Your task to perform on an android device: Search for "razer blackwidow" on walmart.com, select the first entry, add it to the cart, then select checkout. Image 0: 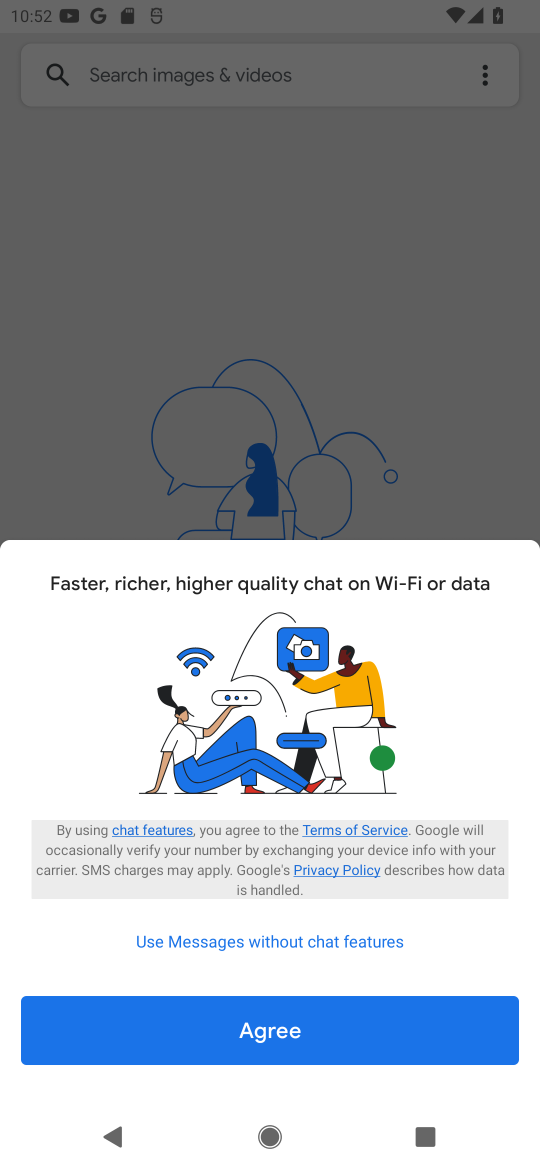
Step 0: press home button
Your task to perform on an android device: Search for "razer blackwidow" on walmart.com, select the first entry, add it to the cart, then select checkout. Image 1: 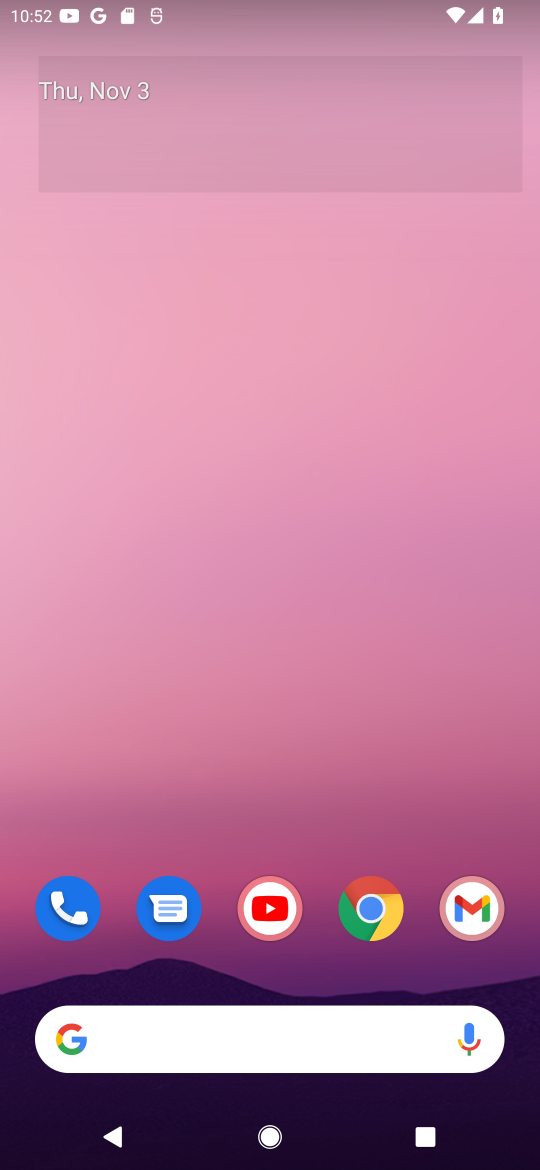
Step 1: click (379, 909)
Your task to perform on an android device: Search for "razer blackwidow" on walmart.com, select the first entry, add it to the cart, then select checkout. Image 2: 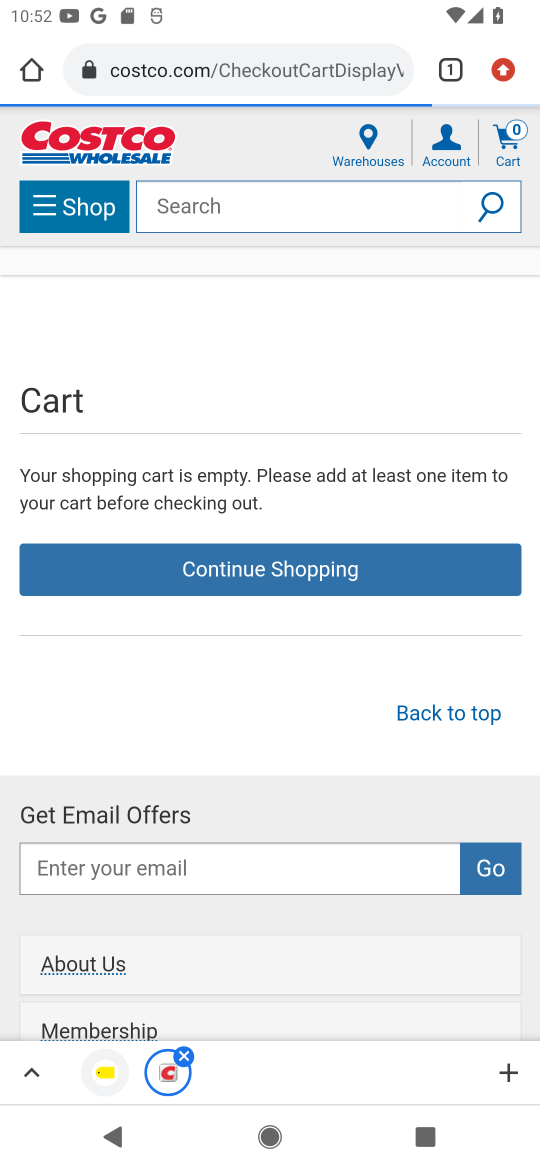
Step 2: click (25, 70)
Your task to perform on an android device: Search for "razer blackwidow" on walmart.com, select the first entry, add it to the cart, then select checkout. Image 3: 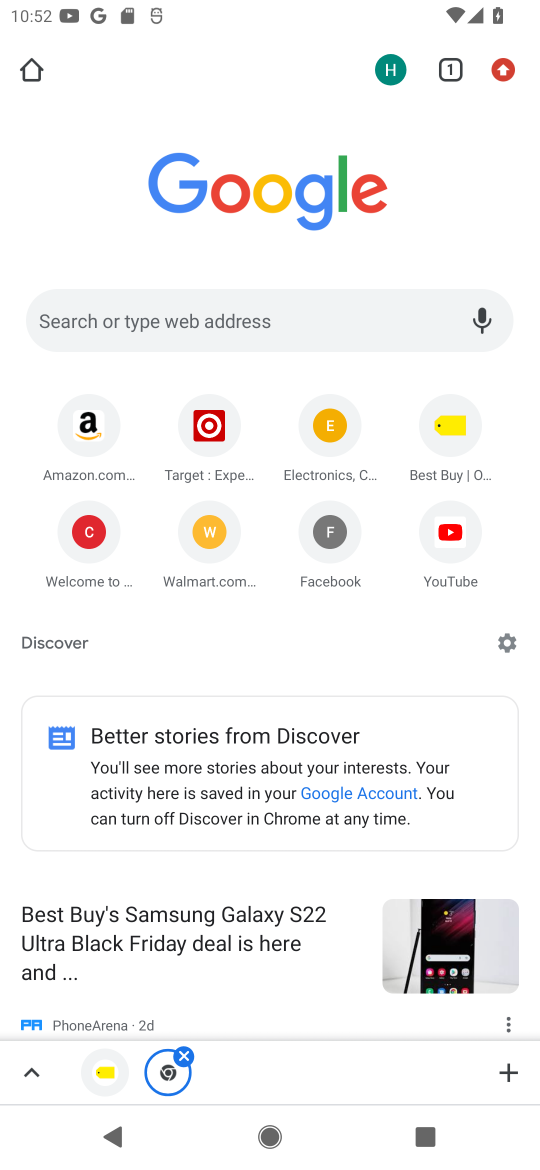
Step 3: click (370, 304)
Your task to perform on an android device: Search for "razer blackwidow" on walmart.com, select the first entry, add it to the cart, then select checkout. Image 4: 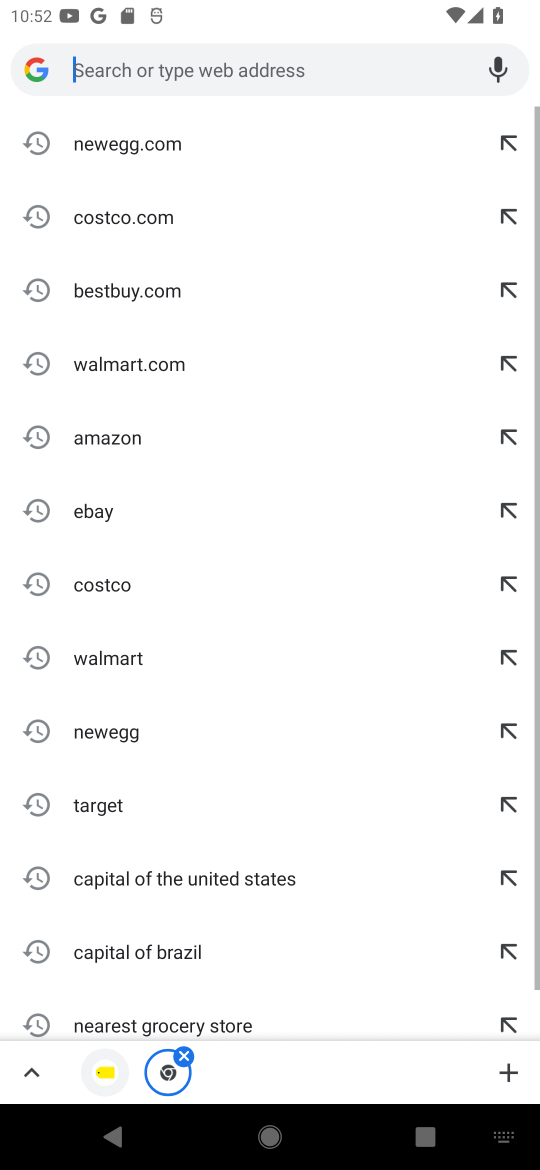
Step 4: click (176, 360)
Your task to perform on an android device: Search for "razer blackwidow" on walmart.com, select the first entry, add it to the cart, then select checkout. Image 5: 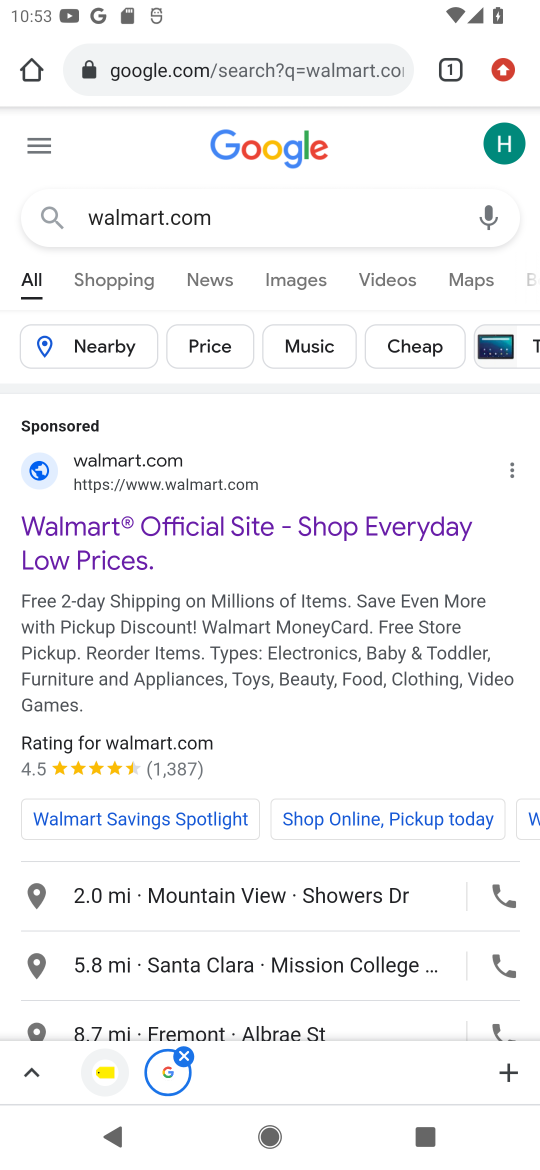
Step 5: click (159, 459)
Your task to perform on an android device: Search for "razer blackwidow" on walmart.com, select the first entry, add it to the cart, then select checkout. Image 6: 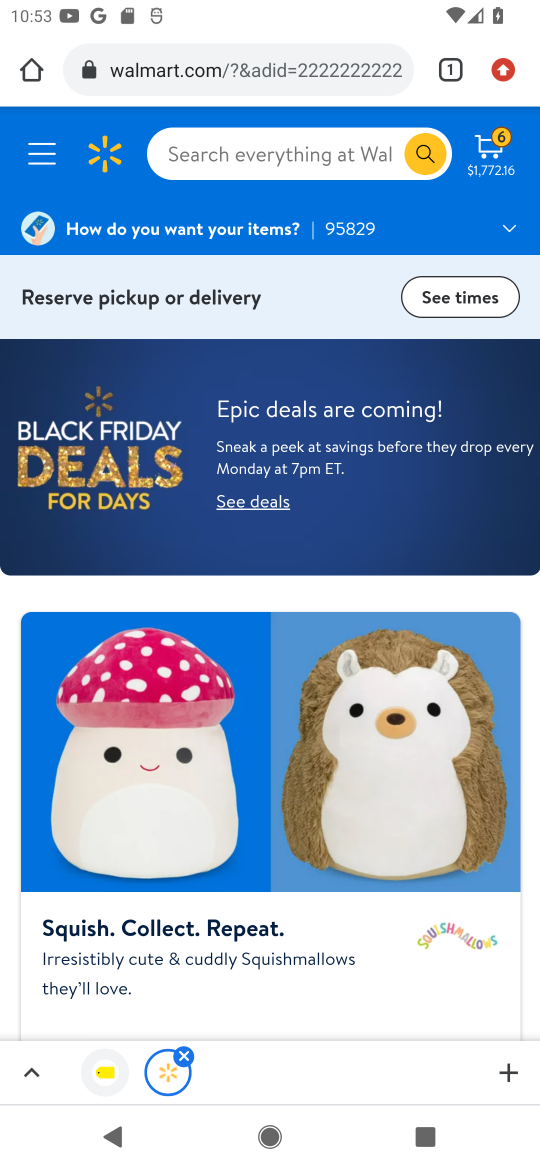
Step 6: click (273, 134)
Your task to perform on an android device: Search for "razer blackwidow" on walmart.com, select the first entry, add it to the cart, then select checkout. Image 7: 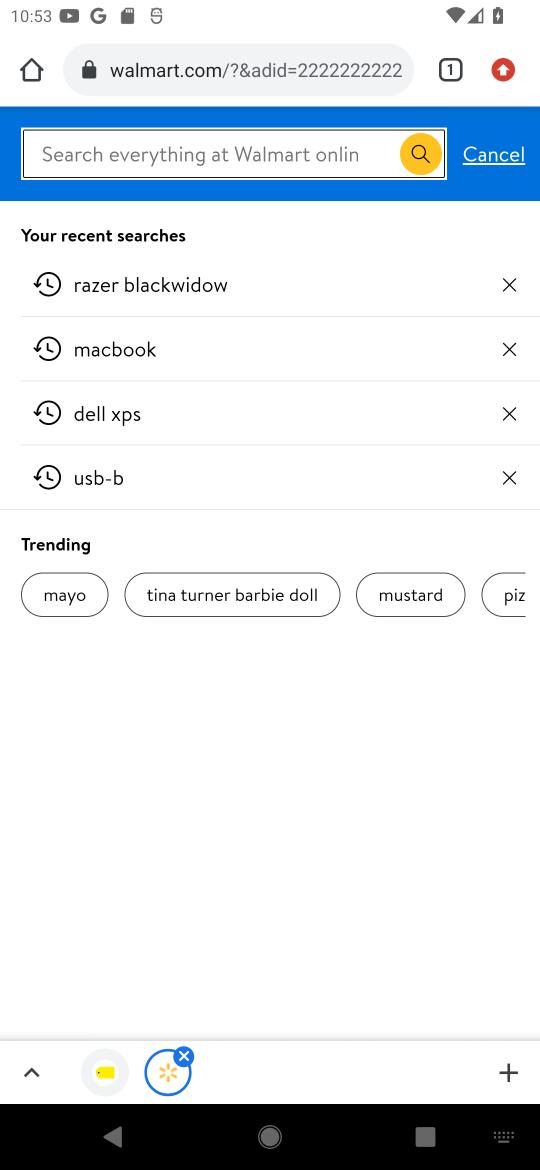
Step 7: type "razer blackwidow"
Your task to perform on an android device: Search for "razer blackwidow" on walmart.com, select the first entry, add it to the cart, then select checkout. Image 8: 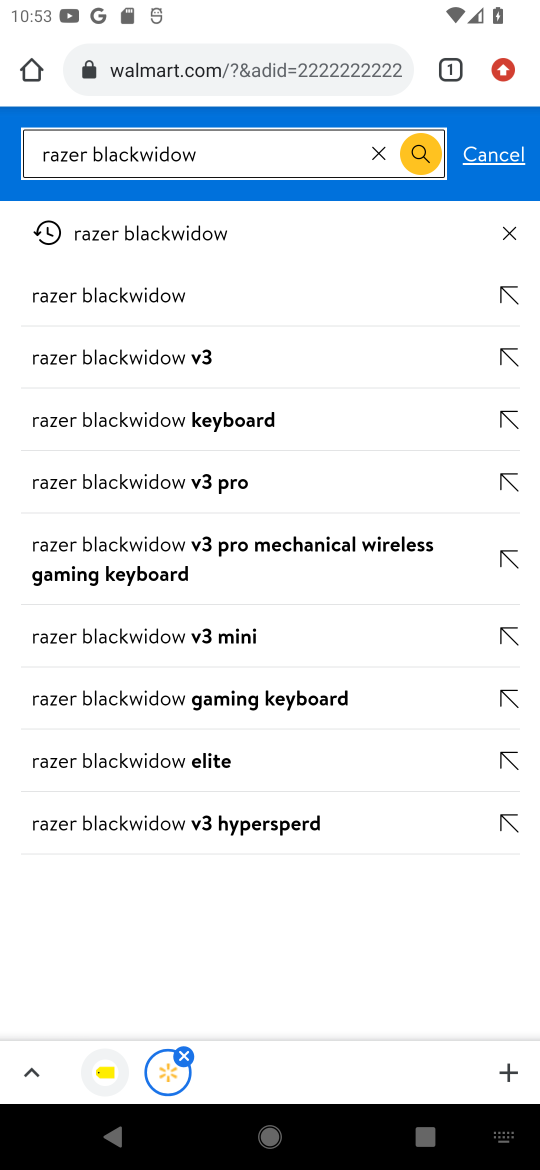
Step 8: click (137, 296)
Your task to perform on an android device: Search for "razer blackwidow" on walmart.com, select the first entry, add it to the cart, then select checkout. Image 9: 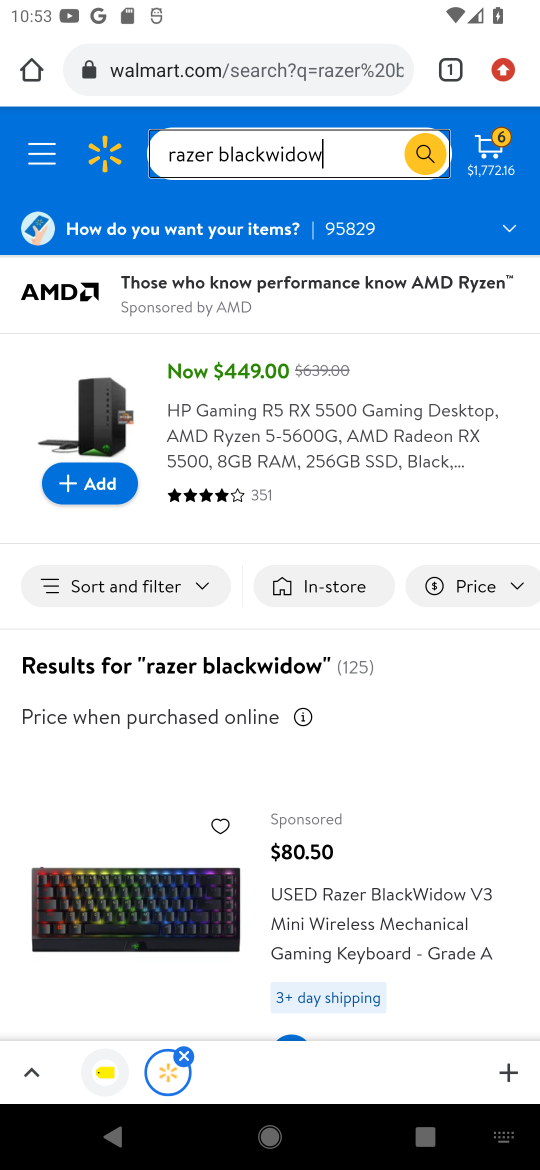
Step 9: click (153, 920)
Your task to perform on an android device: Search for "razer blackwidow" on walmart.com, select the first entry, add it to the cart, then select checkout. Image 10: 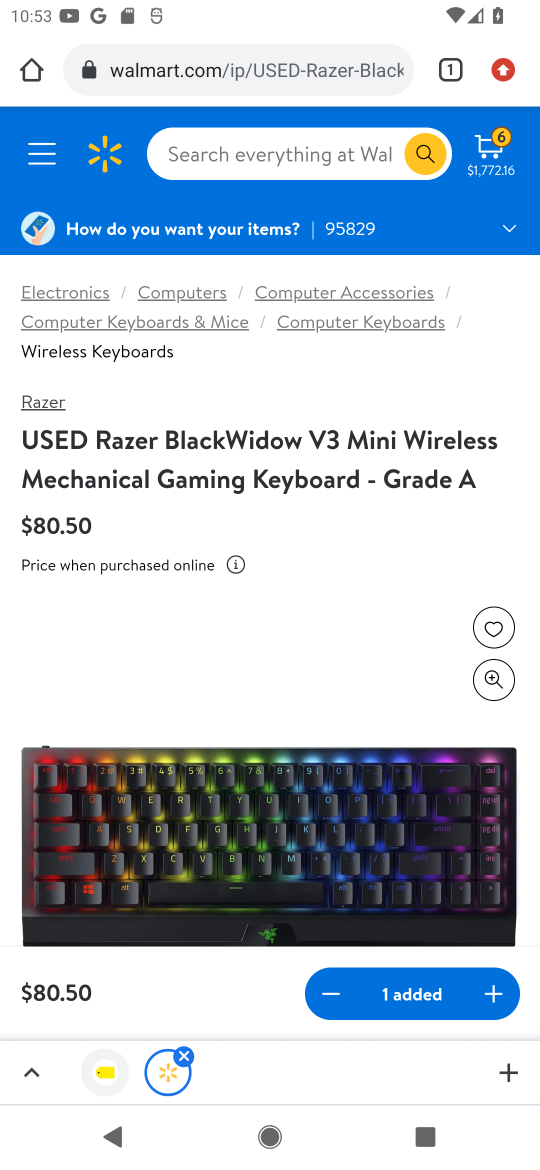
Step 10: press back button
Your task to perform on an android device: Search for "razer blackwidow" on walmart.com, select the first entry, add it to the cart, then select checkout. Image 11: 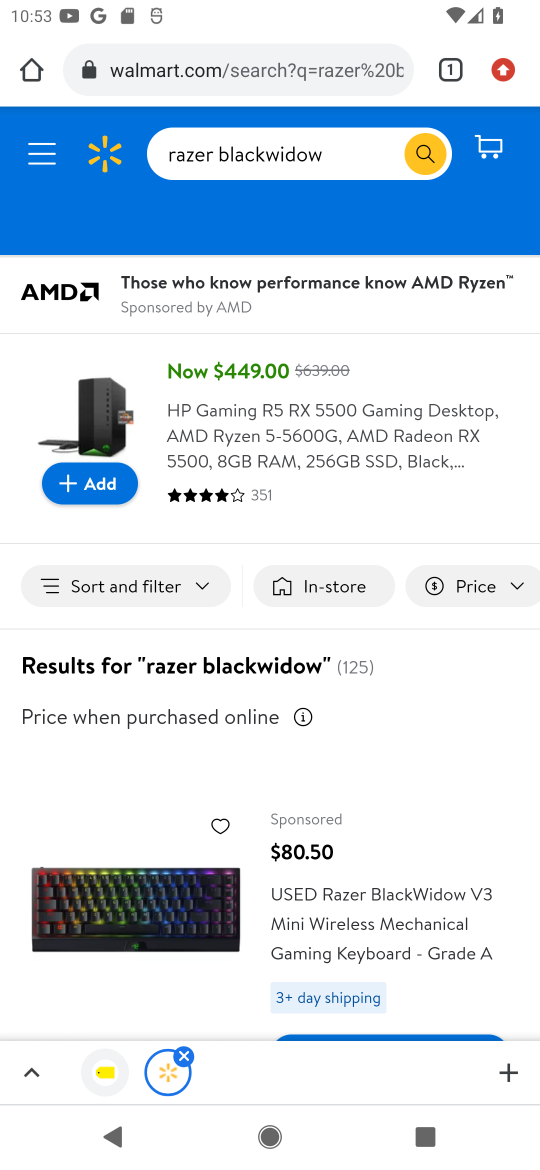
Step 11: drag from (342, 797) to (488, 351)
Your task to perform on an android device: Search for "razer blackwidow" on walmart.com, select the first entry, add it to the cart, then select checkout. Image 12: 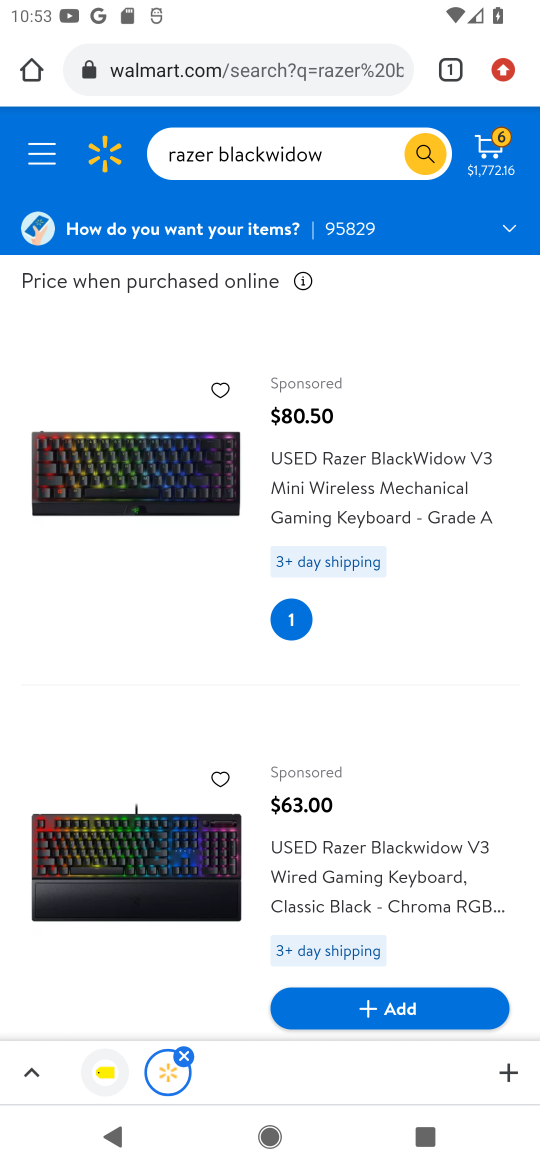
Step 12: drag from (173, 874) to (308, 505)
Your task to perform on an android device: Search for "razer blackwidow" on walmart.com, select the first entry, add it to the cart, then select checkout. Image 13: 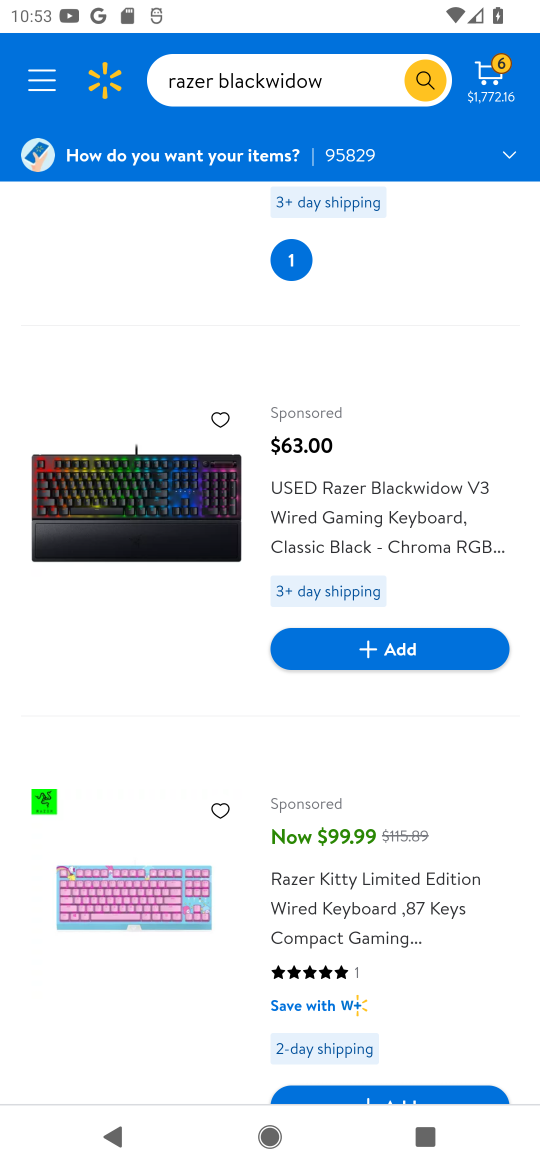
Step 13: drag from (226, 961) to (281, 660)
Your task to perform on an android device: Search for "razer blackwidow" on walmart.com, select the first entry, add it to the cart, then select checkout. Image 14: 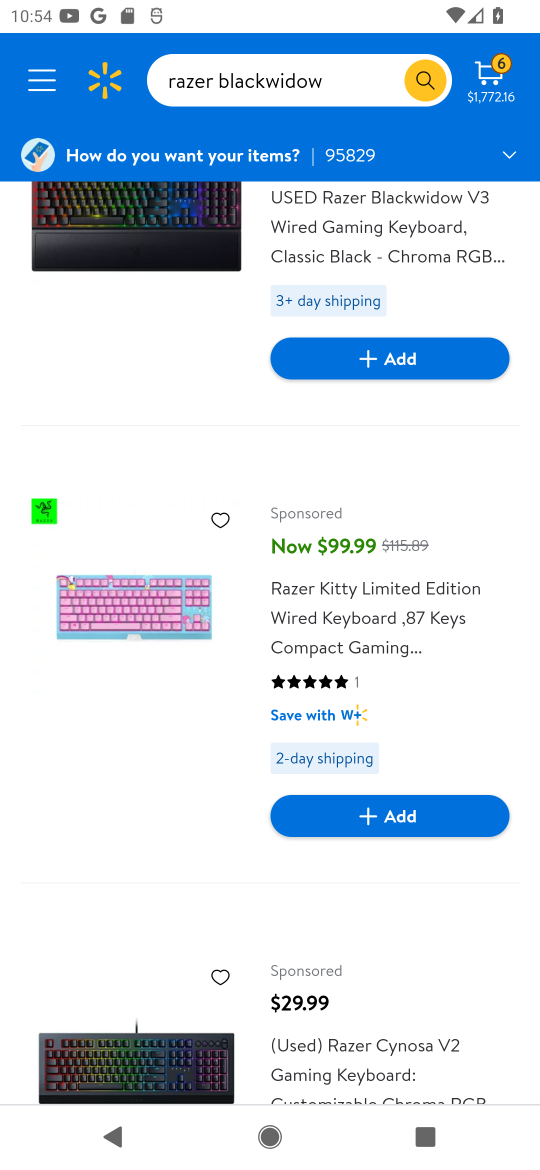
Step 14: drag from (370, 463) to (446, 862)
Your task to perform on an android device: Search for "razer blackwidow" on walmart.com, select the first entry, add it to the cart, then select checkout. Image 15: 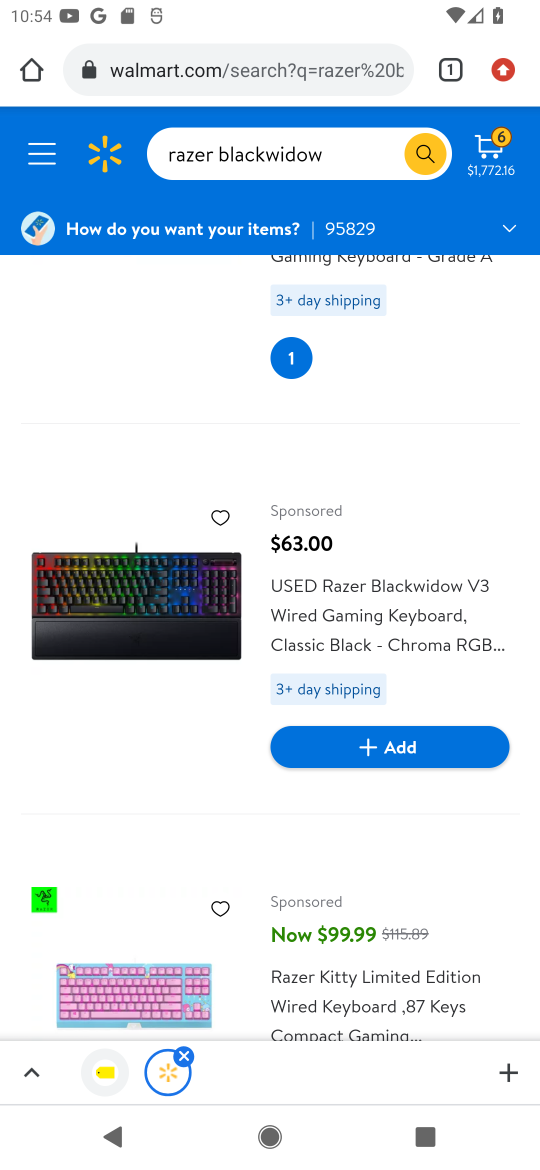
Step 15: drag from (221, 495) to (267, 680)
Your task to perform on an android device: Search for "razer blackwidow" on walmart.com, select the first entry, add it to the cart, then select checkout. Image 16: 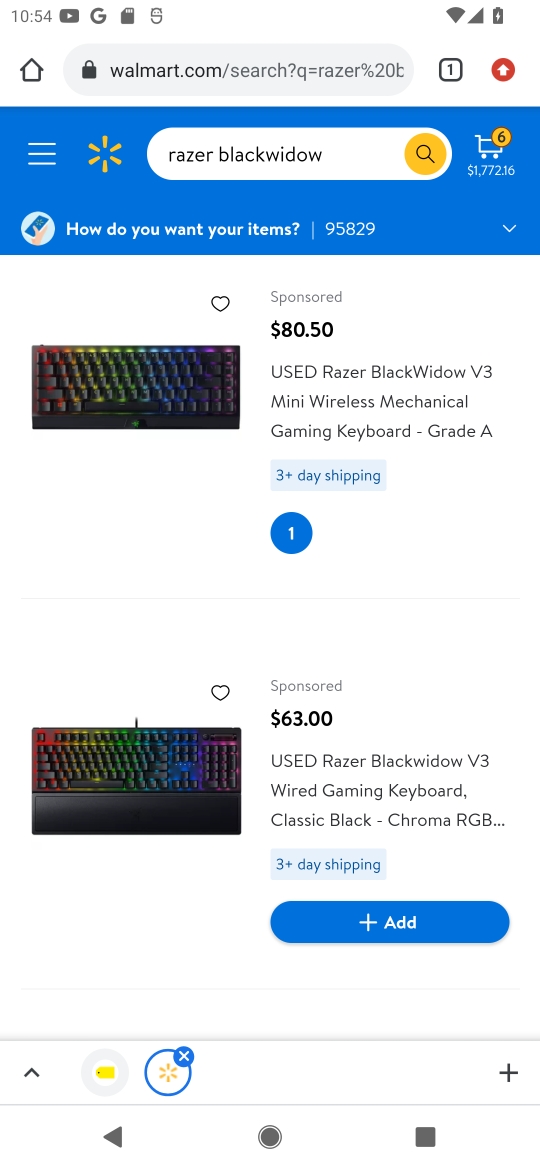
Step 16: click (123, 388)
Your task to perform on an android device: Search for "razer blackwidow" on walmart.com, select the first entry, add it to the cart, then select checkout. Image 17: 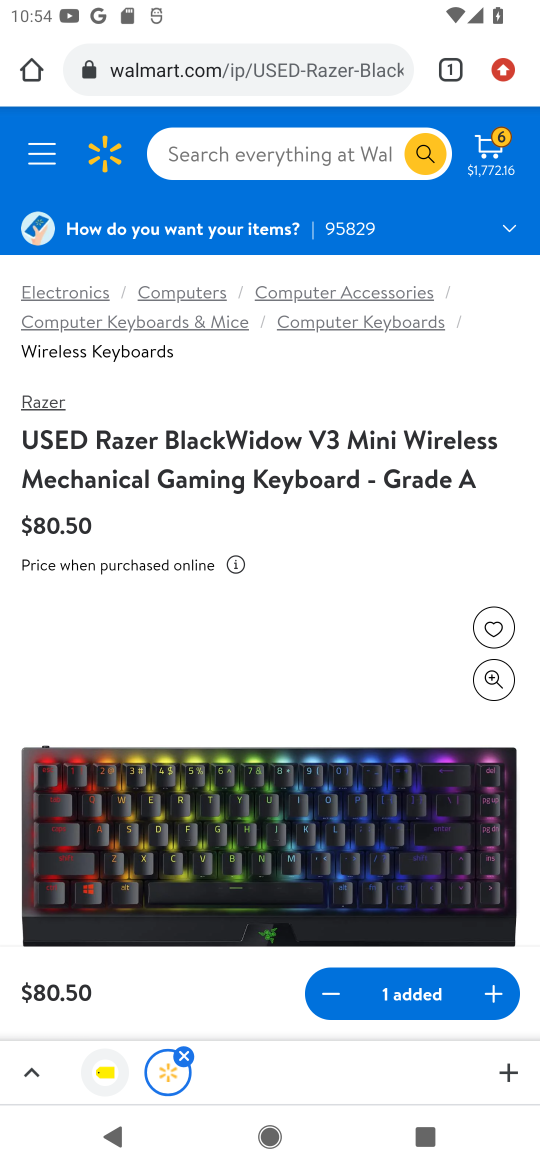
Step 17: drag from (192, 687) to (122, 316)
Your task to perform on an android device: Search for "razer blackwidow" on walmart.com, select the first entry, add it to the cart, then select checkout. Image 18: 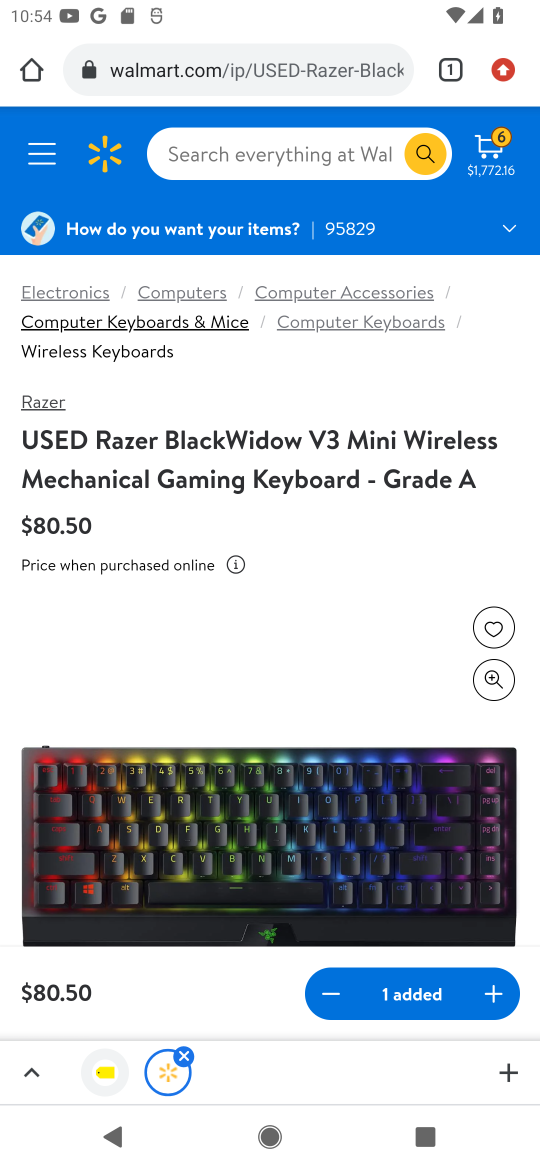
Step 18: drag from (208, 626) to (199, 425)
Your task to perform on an android device: Search for "razer blackwidow" on walmart.com, select the first entry, add it to the cart, then select checkout. Image 19: 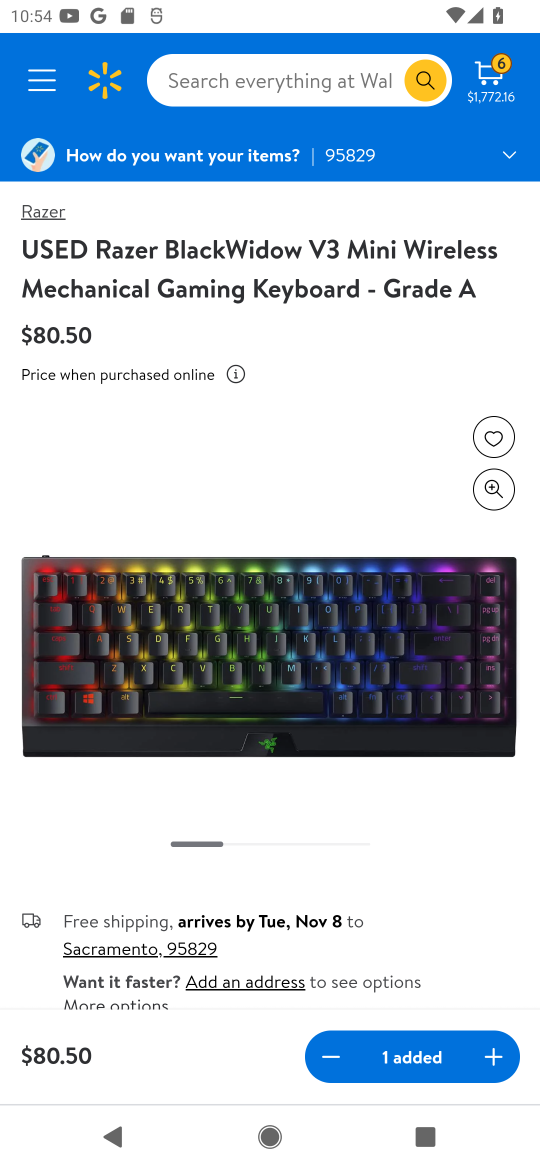
Step 19: drag from (297, 865) to (289, 565)
Your task to perform on an android device: Search for "razer blackwidow" on walmart.com, select the first entry, add it to the cart, then select checkout. Image 20: 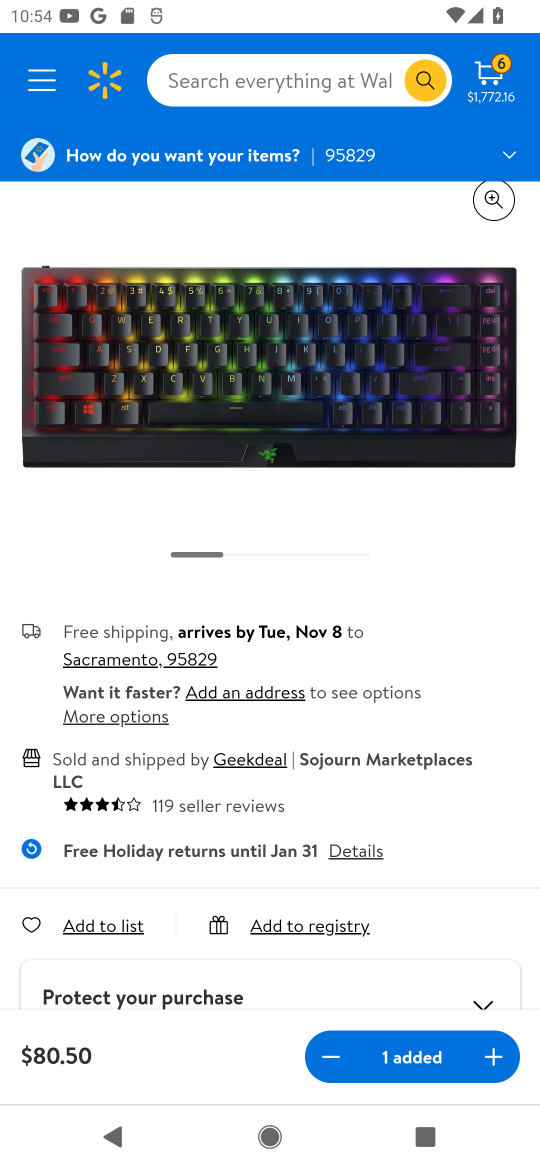
Step 20: drag from (422, 940) to (448, 726)
Your task to perform on an android device: Search for "razer blackwidow" on walmart.com, select the first entry, add it to the cart, then select checkout. Image 21: 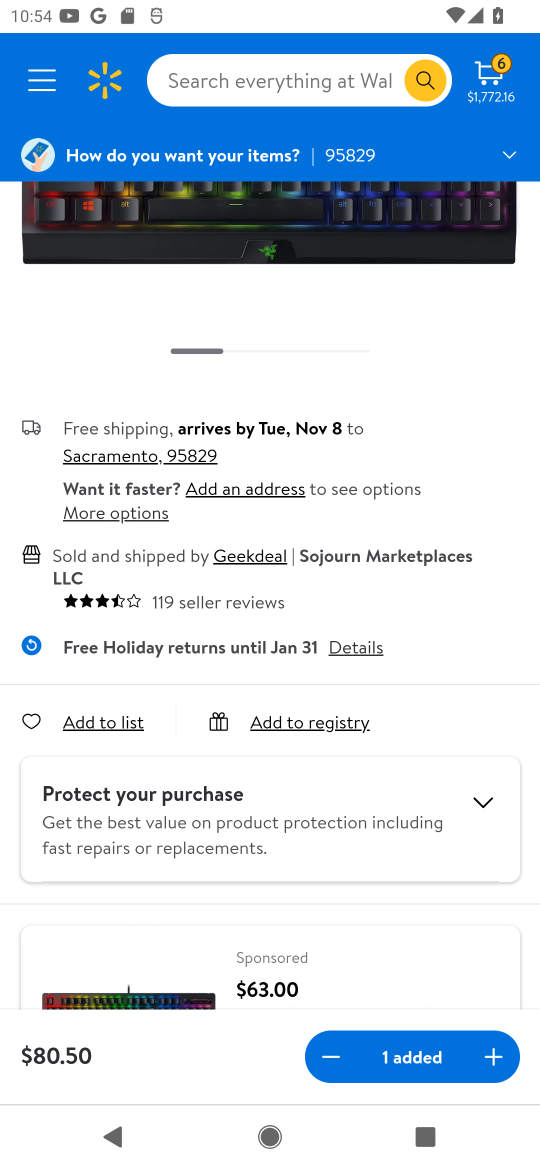
Step 21: click (135, 725)
Your task to perform on an android device: Search for "razer blackwidow" on walmart.com, select the first entry, add it to the cart, then select checkout. Image 22: 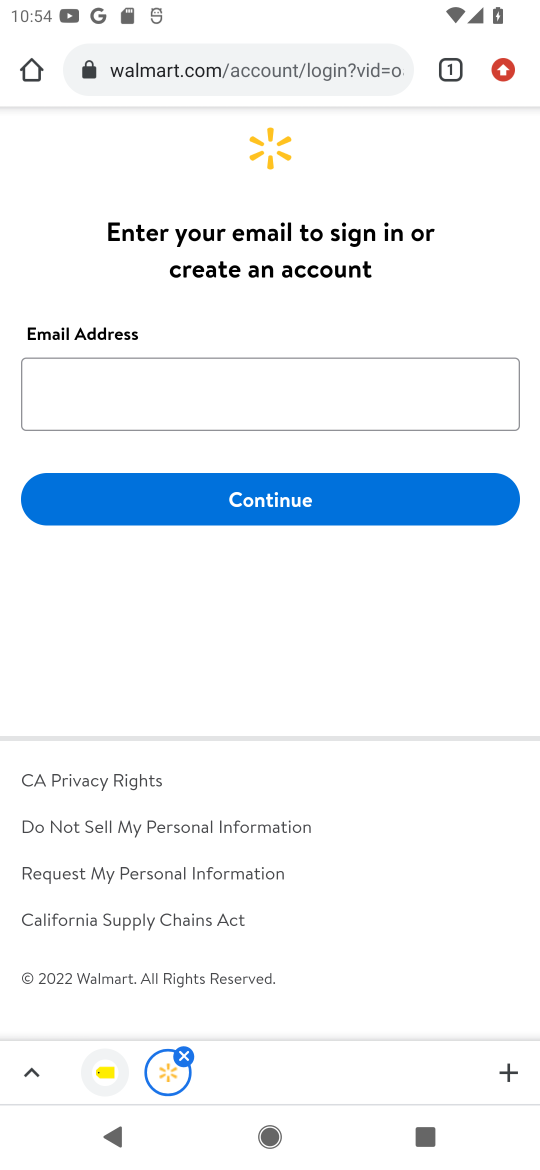
Step 22: drag from (463, 268) to (465, 444)
Your task to perform on an android device: Search for "razer blackwidow" on walmart.com, select the first entry, add it to the cart, then select checkout. Image 23: 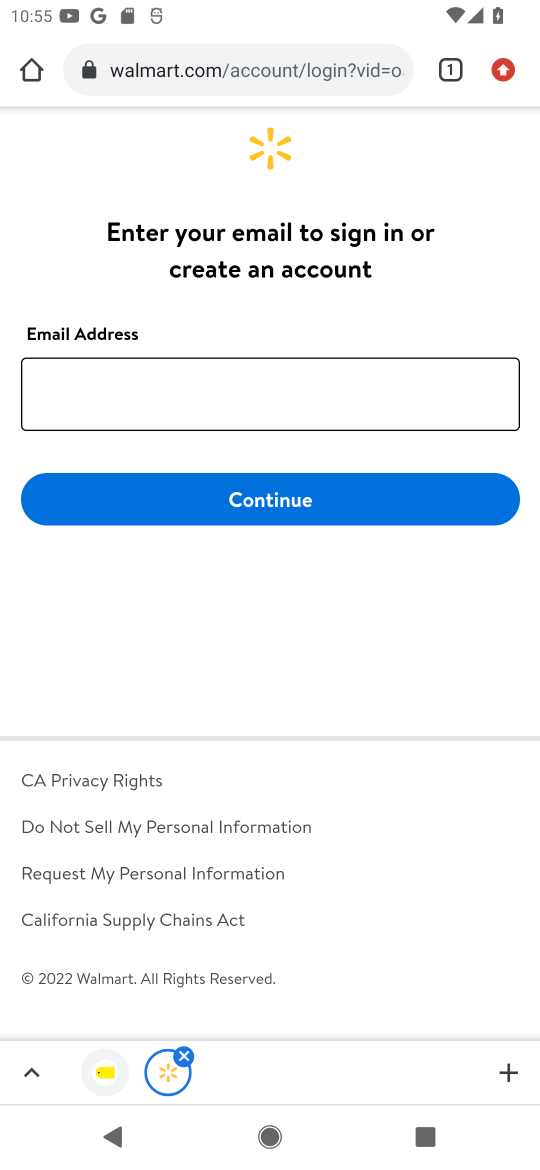
Step 23: press back button
Your task to perform on an android device: Search for "razer blackwidow" on walmart.com, select the first entry, add it to the cart, then select checkout. Image 24: 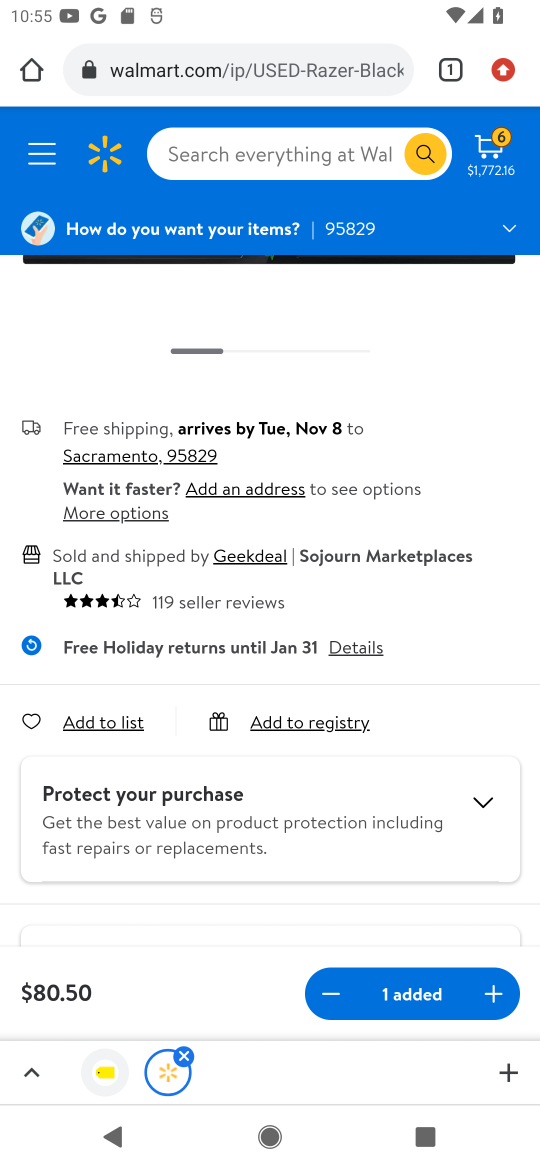
Step 24: drag from (405, 808) to (409, 516)
Your task to perform on an android device: Search for "razer blackwidow" on walmart.com, select the first entry, add it to the cart, then select checkout. Image 25: 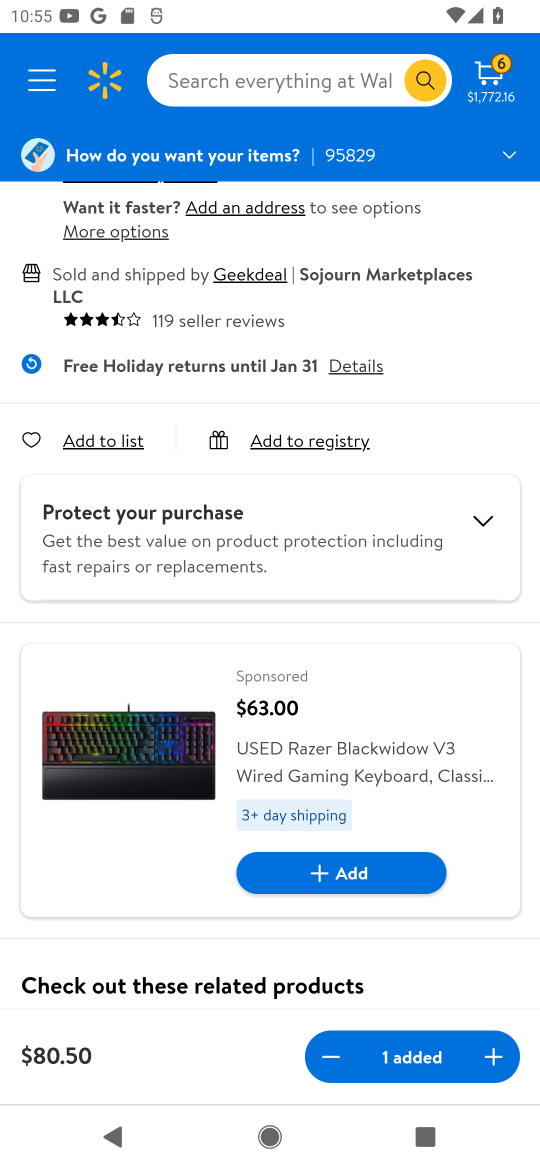
Step 25: click (427, 398)
Your task to perform on an android device: Search for "razer blackwidow" on walmart.com, select the first entry, add it to the cart, then select checkout. Image 26: 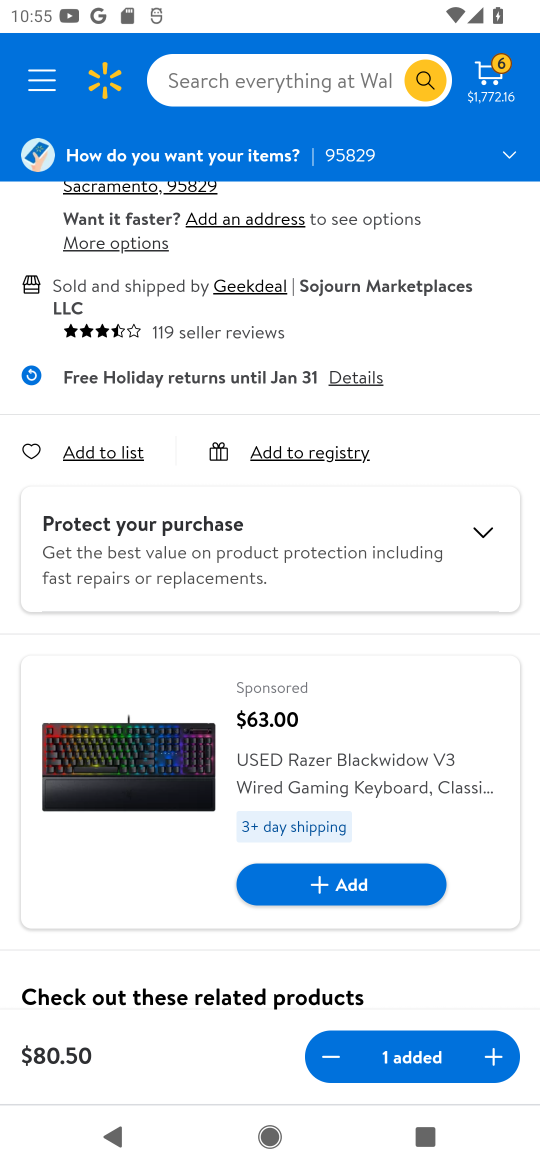
Step 26: click (428, 421)
Your task to perform on an android device: Search for "razer blackwidow" on walmart.com, select the first entry, add it to the cart, then select checkout. Image 27: 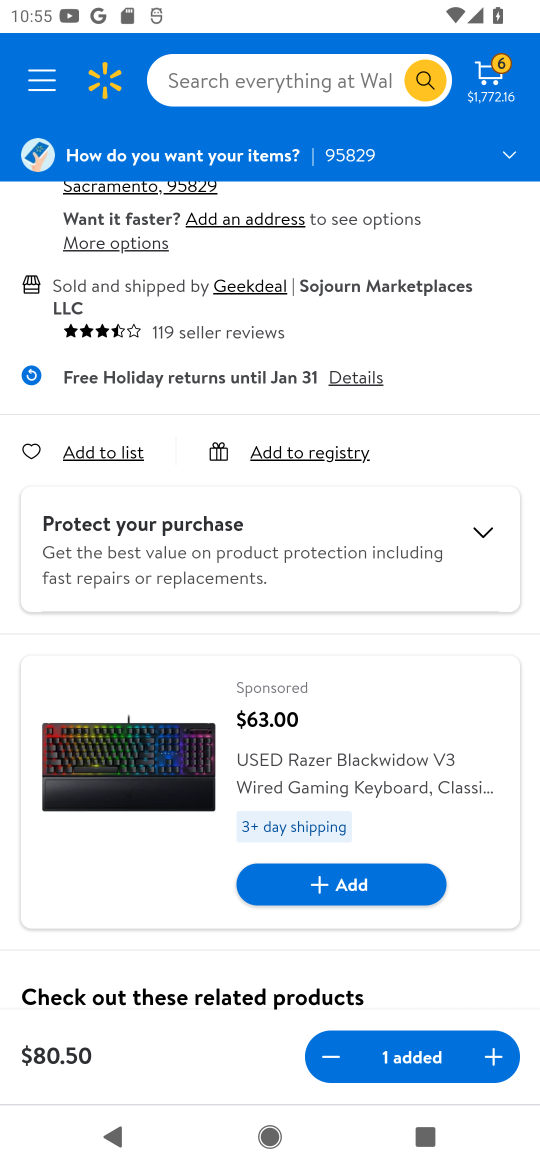
Step 27: click (469, 99)
Your task to perform on an android device: Search for "razer blackwidow" on walmart.com, select the first entry, add it to the cart, then select checkout. Image 28: 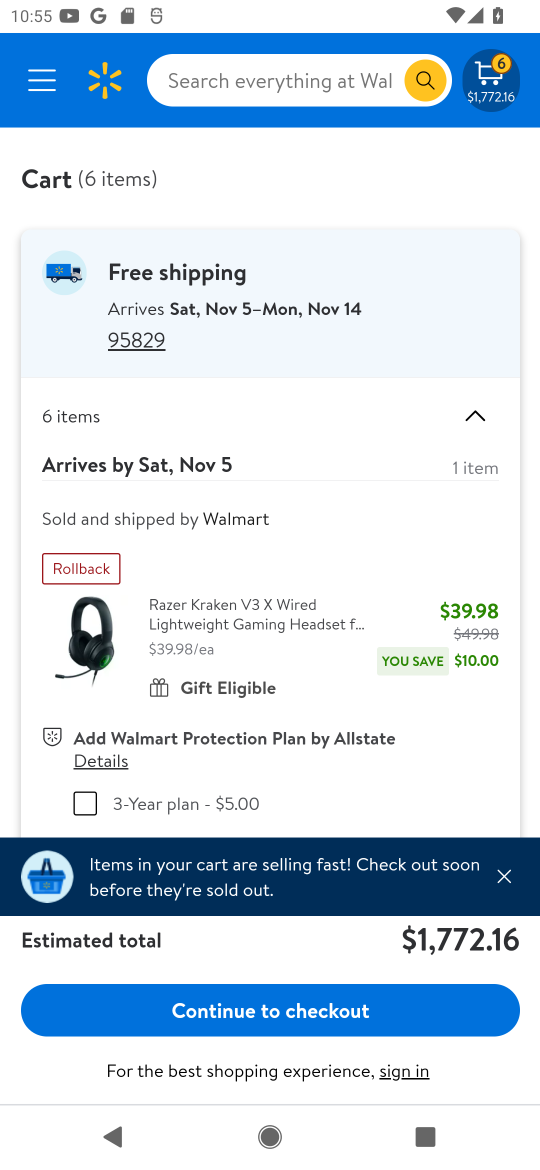
Step 28: click (337, 1005)
Your task to perform on an android device: Search for "razer blackwidow" on walmart.com, select the first entry, add it to the cart, then select checkout. Image 29: 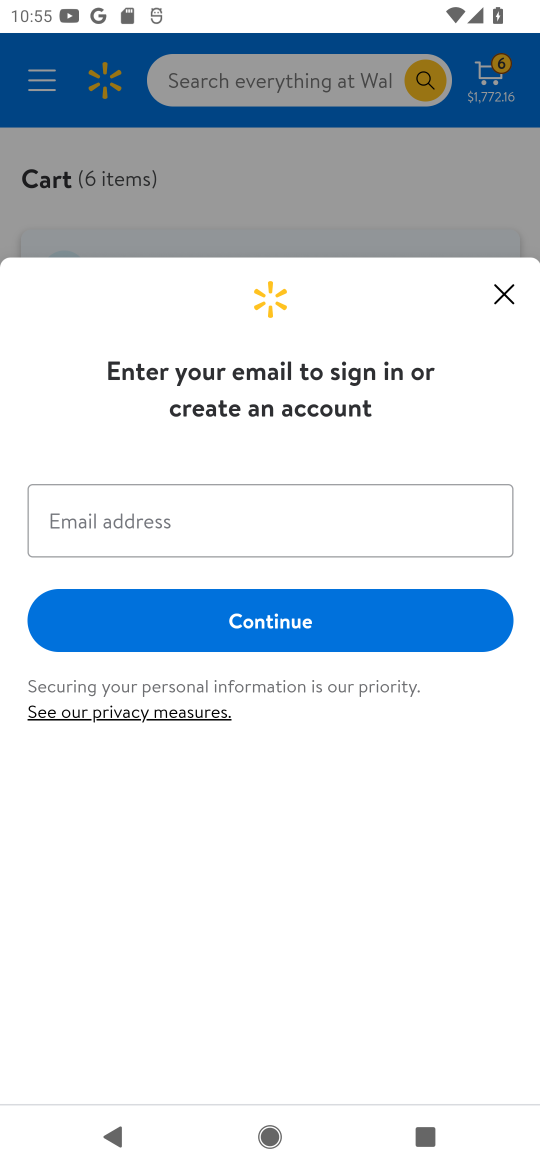
Step 29: task complete